Your task to perform on an android device: open app "Upside-Cash back on gas & food" (install if not already installed), go to login, and select forgot password Image 0: 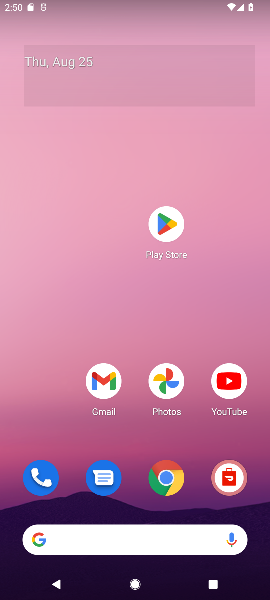
Step 0: click (162, 223)
Your task to perform on an android device: open app "Upside-Cash back on gas & food" (install if not already installed), go to login, and select forgot password Image 1: 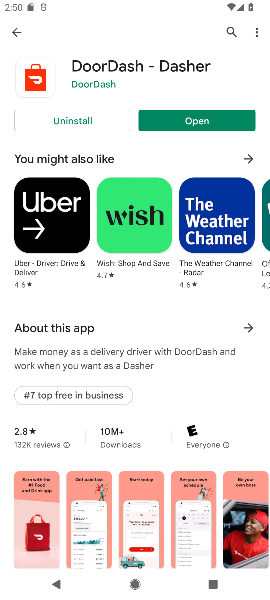
Step 1: click (228, 27)
Your task to perform on an android device: open app "Upside-Cash back on gas & food" (install if not already installed), go to login, and select forgot password Image 2: 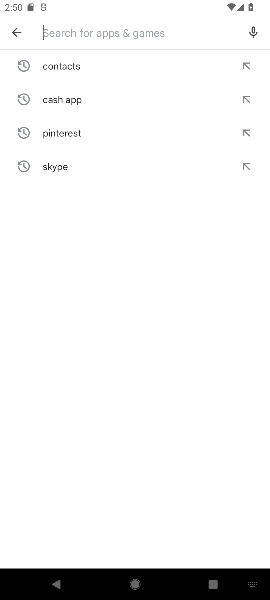
Step 2: type "Upside-Cash back on gas & food"
Your task to perform on an android device: open app "Upside-Cash back on gas & food" (install if not already installed), go to login, and select forgot password Image 3: 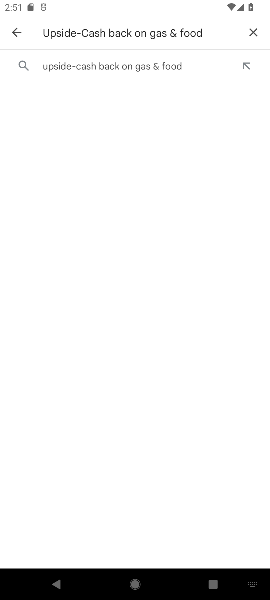
Step 3: click (103, 62)
Your task to perform on an android device: open app "Upside-Cash back on gas & food" (install if not already installed), go to login, and select forgot password Image 4: 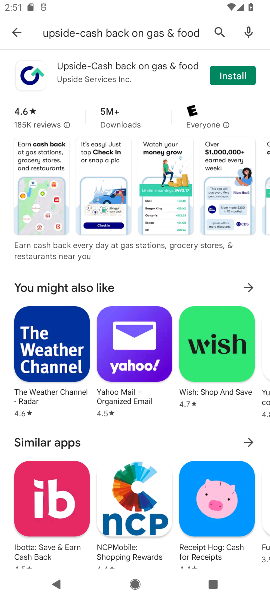
Step 4: click (230, 75)
Your task to perform on an android device: open app "Upside-Cash back on gas & food" (install if not already installed), go to login, and select forgot password Image 5: 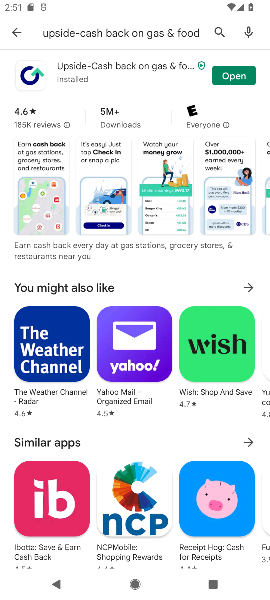
Step 5: click (235, 78)
Your task to perform on an android device: open app "Upside-Cash back on gas & food" (install if not already installed), go to login, and select forgot password Image 6: 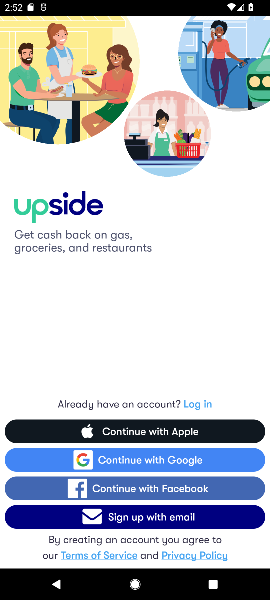
Step 6: click (143, 518)
Your task to perform on an android device: open app "Upside-Cash back on gas & food" (install if not already installed), go to login, and select forgot password Image 7: 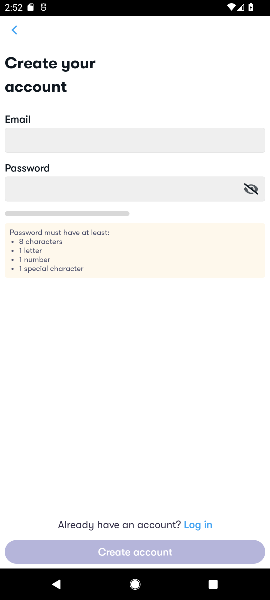
Step 7: click (196, 521)
Your task to perform on an android device: open app "Upside-Cash back on gas & food" (install if not already installed), go to login, and select forgot password Image 8: 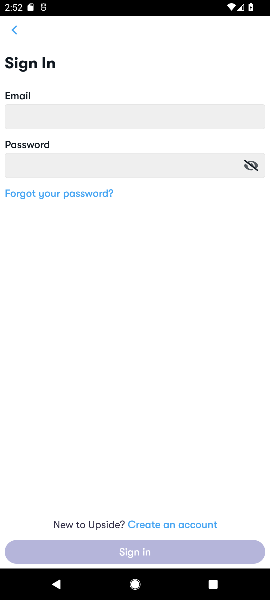
Step 8: click (93, 191)
Your task to perform on an android device: open app "Upside-Cash back on gas & food" (install if not already installed), go to login, and select forgot password Image 9: 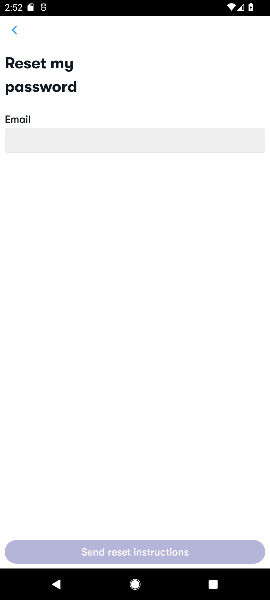
Step 9: task complete